Your task to perform on an android device: turn notification dots off Image 0: 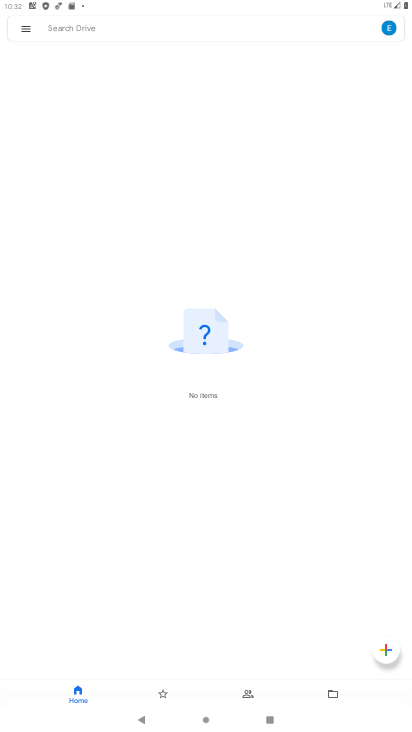
Step 0: press home button
Your task to perform on an android device: turn notification dots off Image 1: 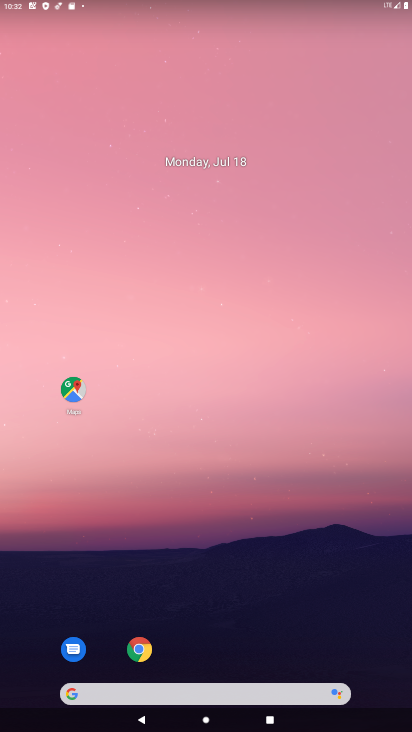
Step 1: drag from (181, 725) to (284, 142)
Your task to perform on an android device: turn notification dots off Image 2: 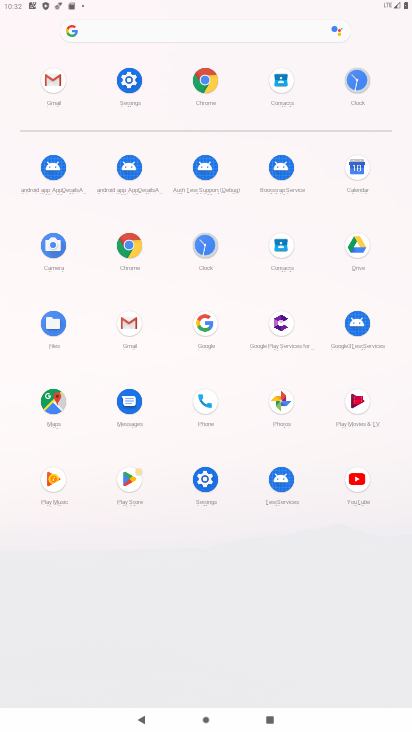
Step 2: click (123, 78)
Your task to perform on an android device: turn notification dots off Image 3: 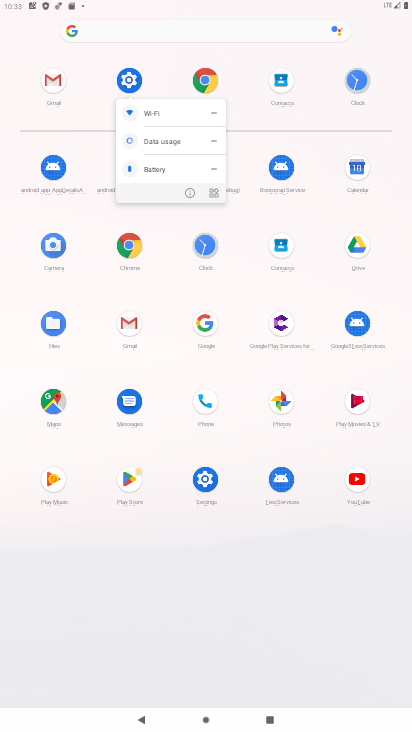
Step 3: click (125, 78)
Your task to perform on an android device: turn notification dots off Image 4: 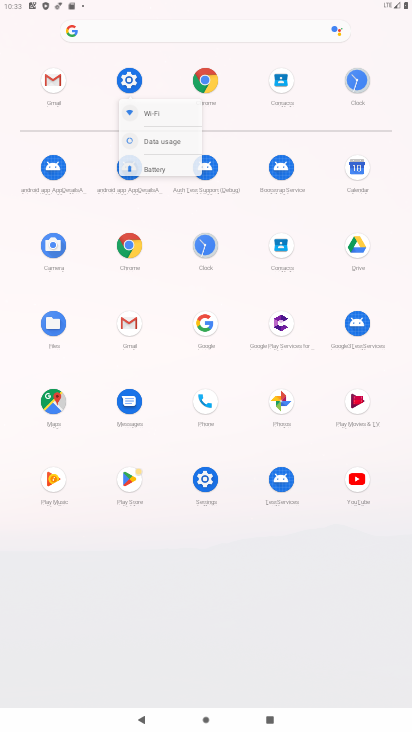
Step 4: click (125, 78)
Your task to perform on an android device: turn notification dots off Image 5: 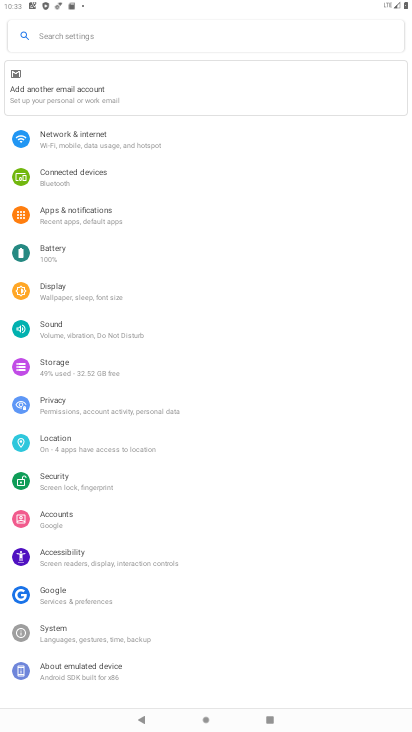
Step 5: click (124, 209)
Your task to perform on an android device: turn notification dots off Image 6: 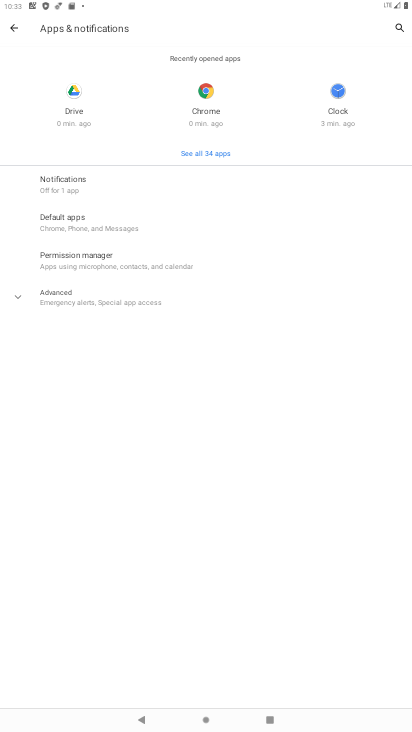
Step 6: click (115, 187)
Your task to perform on an android device: turn notification dots off Image 7: 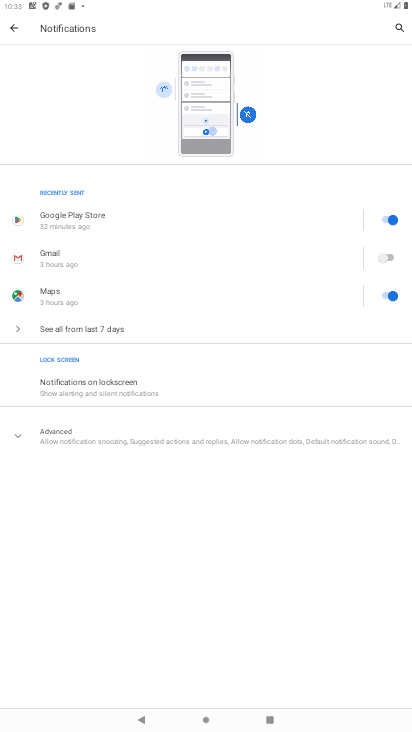
Step 7: click (264, 441)
Your task to perform on an android device: turn notification dots off Image 8: 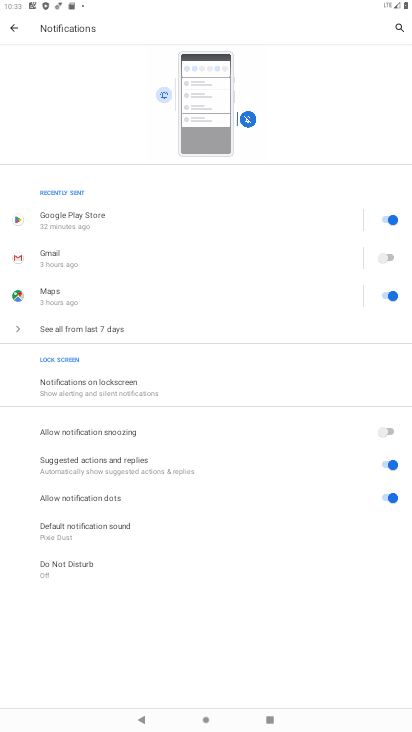
Step 8: click (392, 496)
Your task to perform on an android device: turn notification dots off Image 9: 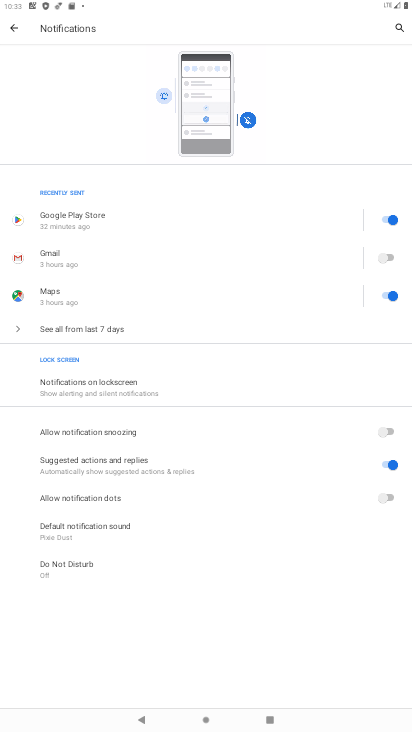
Step 9: task complete